Your task to perform on an android device: allow notifications from all sites in the chrome app Image 0: 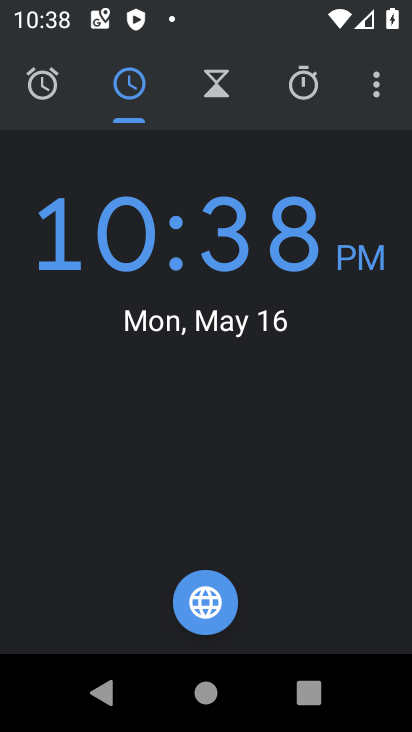
Step 0: press home button
Your task to perform on an android device: allow notifications from all sites in the chrome app Image 1: 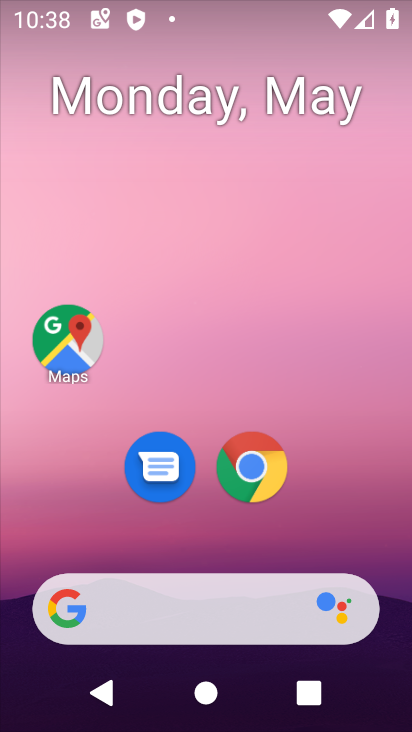
Step 1: click (253, 469)
Your task to perform on an android device: allow notifications from all sites in the chrome app Image 2: 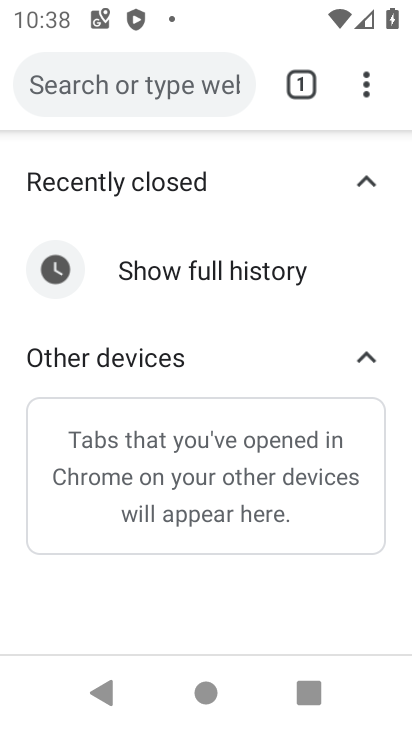
Step 2: click (367, 89)
Your task to perform on an android device: allow notifications from all sites in the chrome app Image 3: 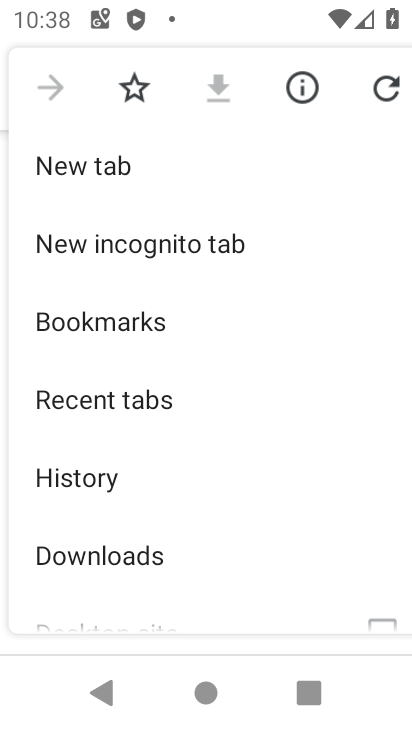
Step 3: drag from (245, 593) to (227, 139)
Your task to perform on an android device: allow notifications from all sites in the chrome app Image 4: 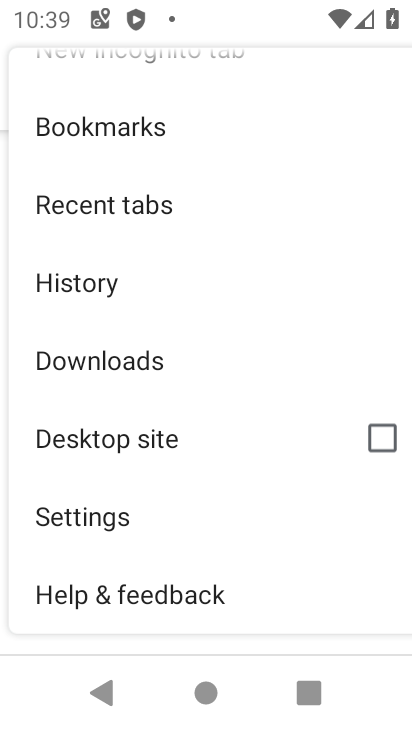
Step 4: click (88, 523)
Your task to perform on an android device: allow notifications from all sites in the chrome app Image 5: 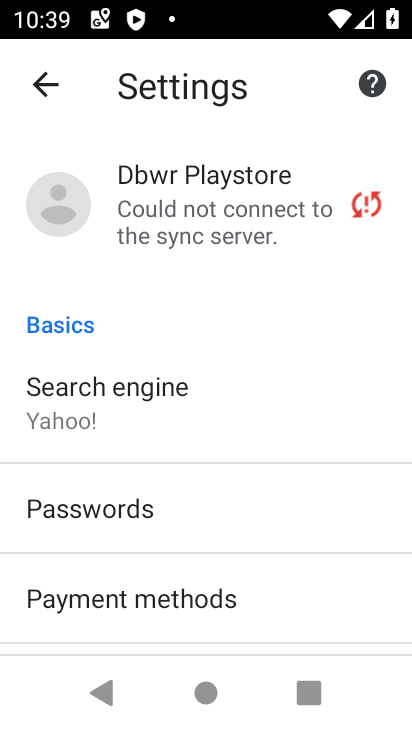
Step 5: drag from (313, 575) to (296, 286)
Your task to perform on an android device: allow notifications from all sites in the chrome app Image 6: 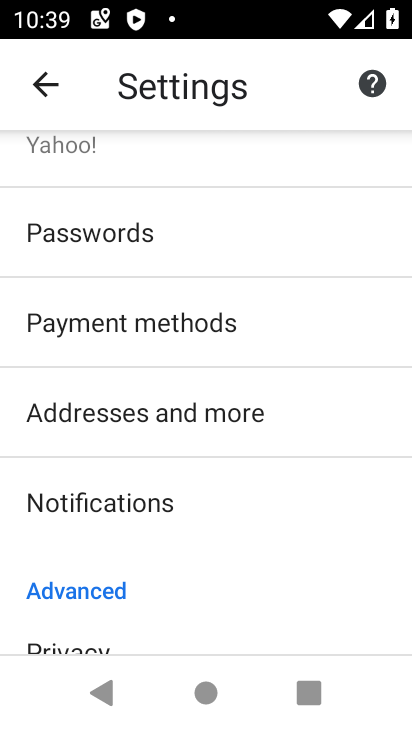
Step 6: drag from (319, 631) to (299, 409)
Your task to perform on an android device: allow notifications from all sites in the chrome app Image 7: 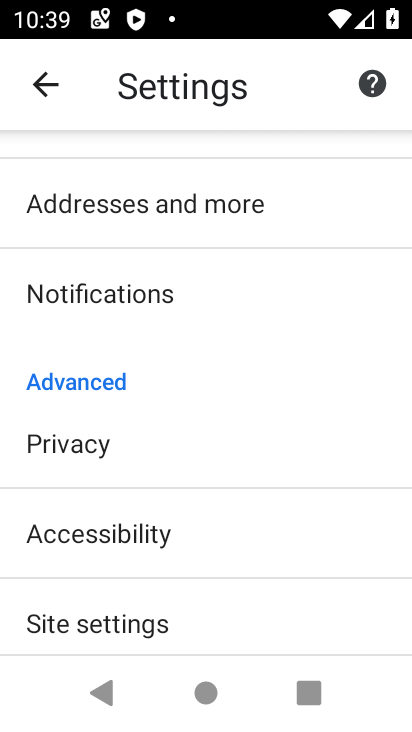
Step 7: click (110, 630)
Your task to perform on an android device: allow notifications from all sites in the chrome app Image 8: 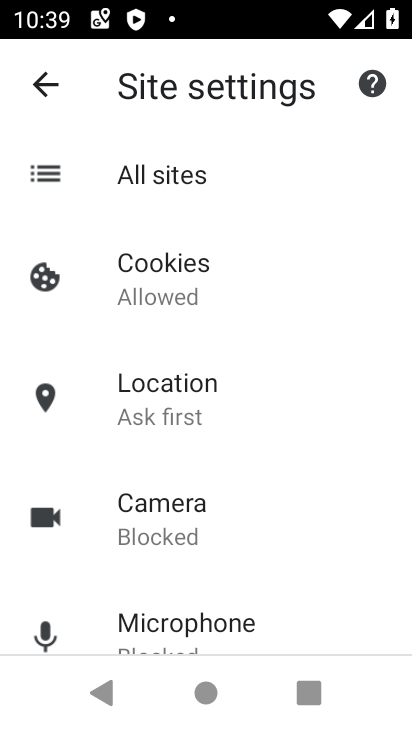
Step 8: drag from (235, 643) to (262, 153)
Your task to perform on an android device: allow notifications from all sites in the chrome app Image 9: 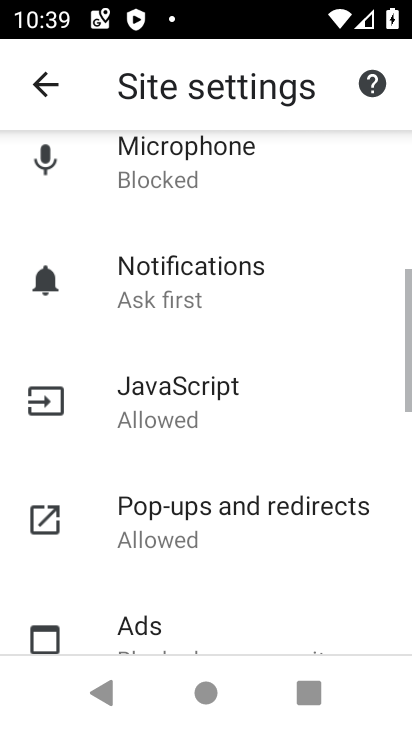
Step 9: click (167, 291)
Your task to perform on an android device: allow notifications from all sites in the chrome app Image 10: 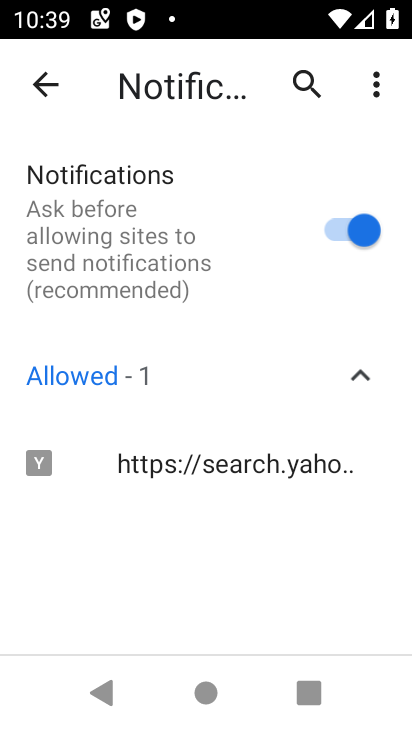
Step 10: task complete